Your task to perform on an android device: What's the news about the US? Image 0: 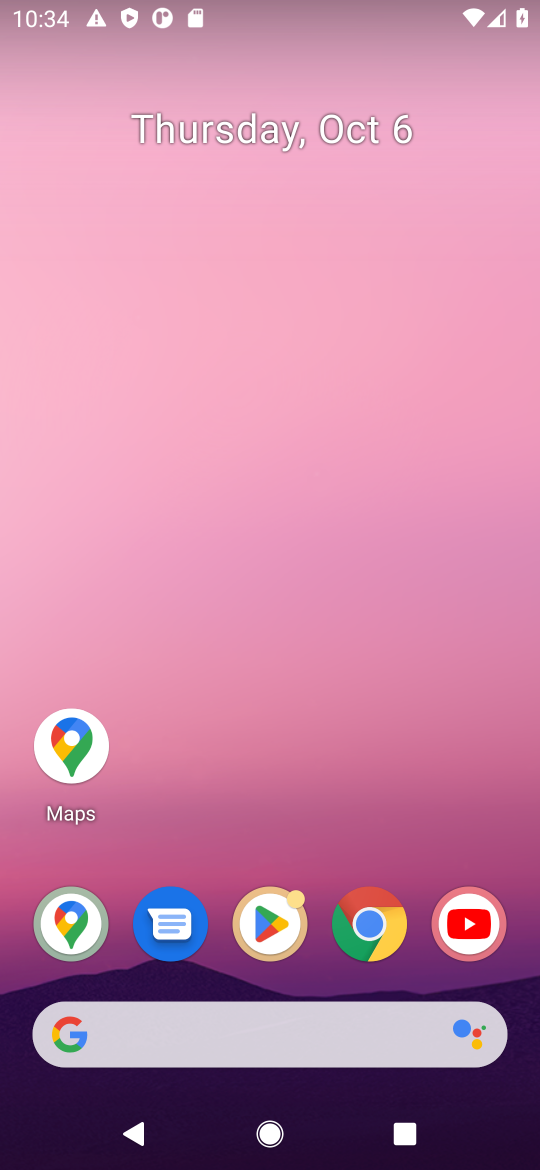
Step 0: click (363, 935)
Your task to perform on an android device: What's the news about the US? Image 1: 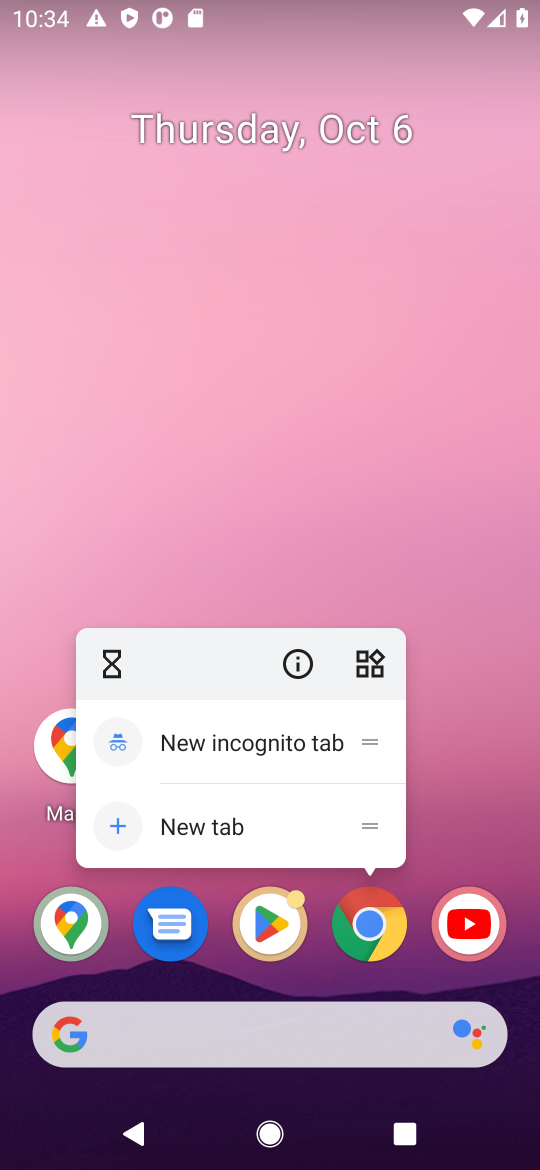
Step 1: click (361, 919)
Your task to perform on an android device: What's the news about the US? Image 2: 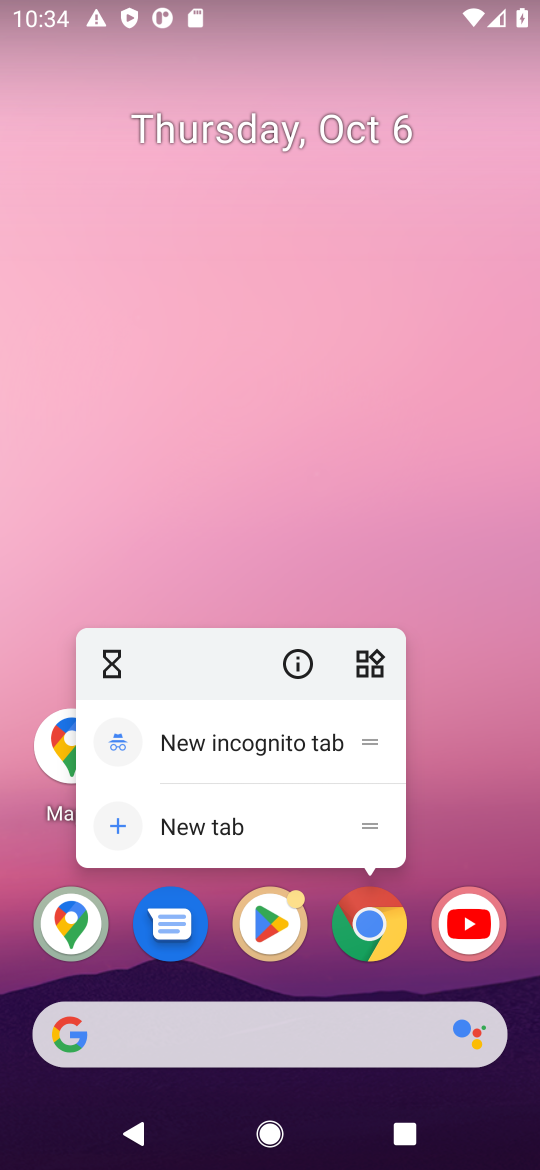
Step 2: click (370, 928)
Your task to perform on an android device: What's the news about the US? Image 3: 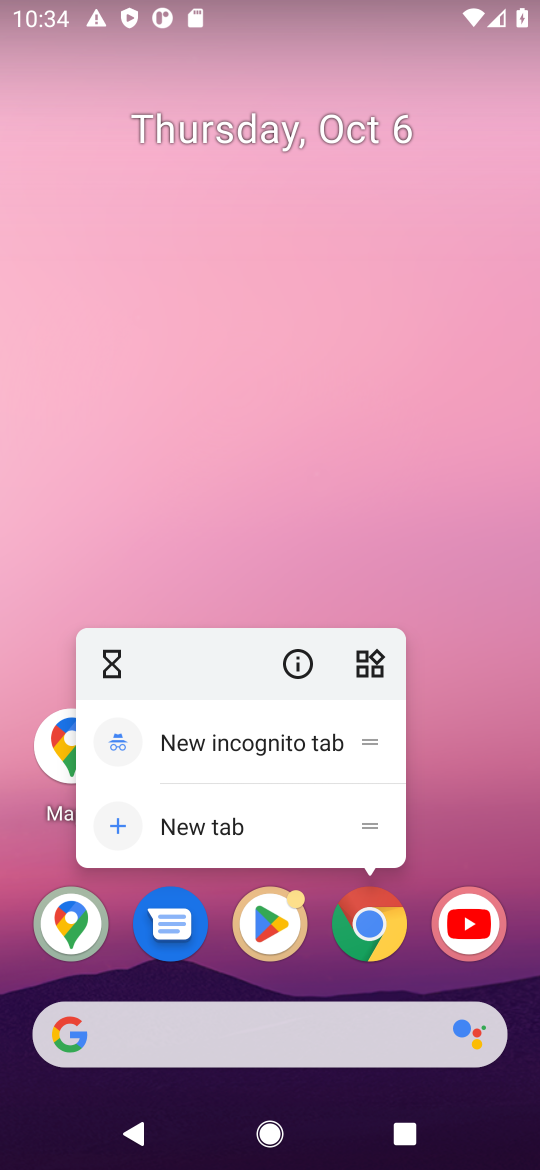
Step 3: click (370, 925)
Your task to perform on an android device: What's the news about the US? Image 4: 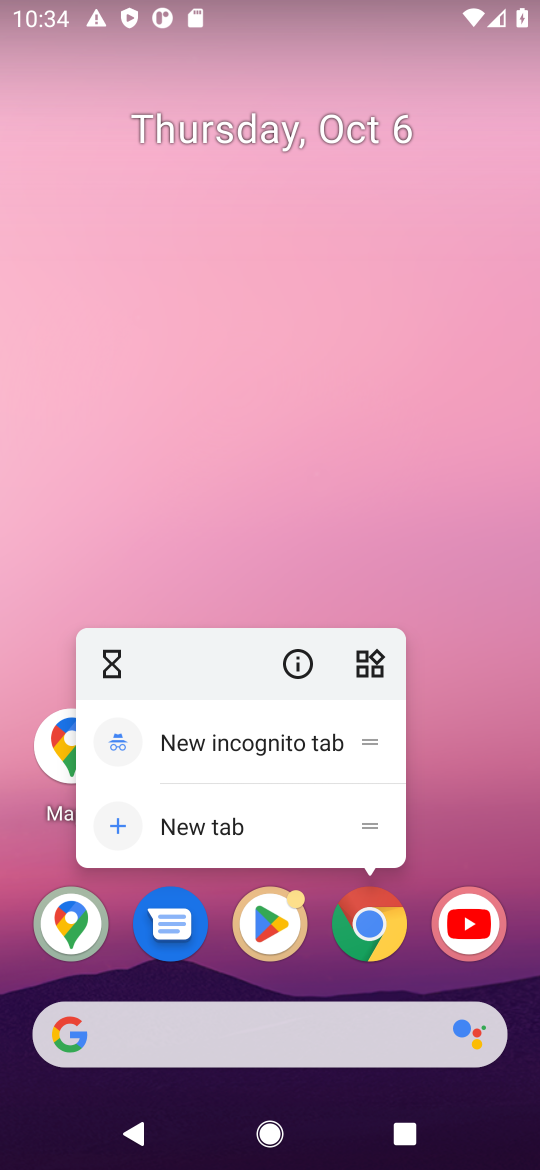
Step 4: click (370, 924)
Your task to perform on an android device: What's the news about the US? Image 5: 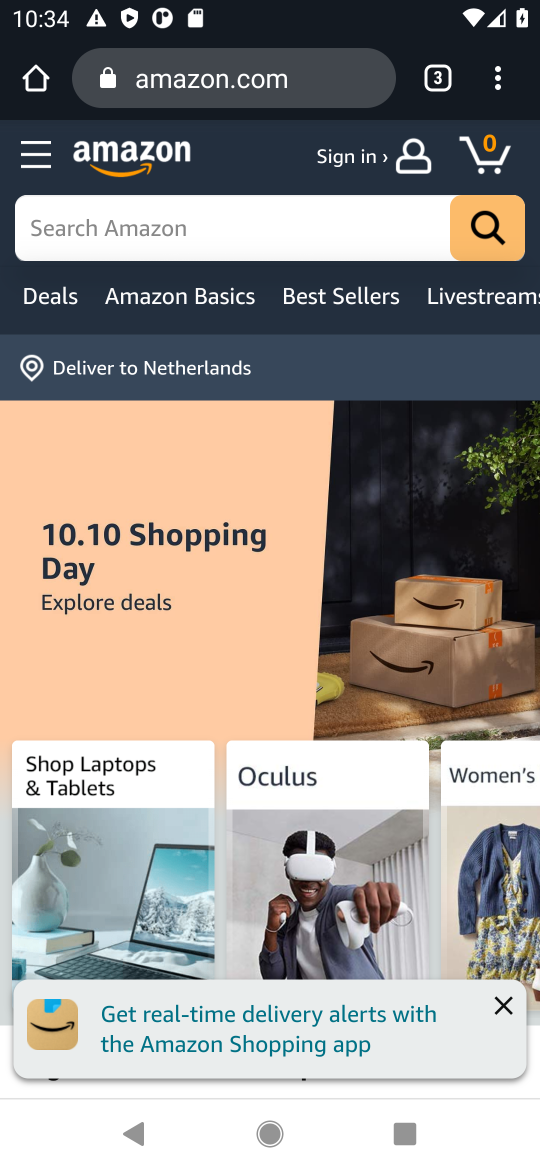
Step 5: click (343, 91)
Your task to perform on an android device: What's the news about the US? Image 6: 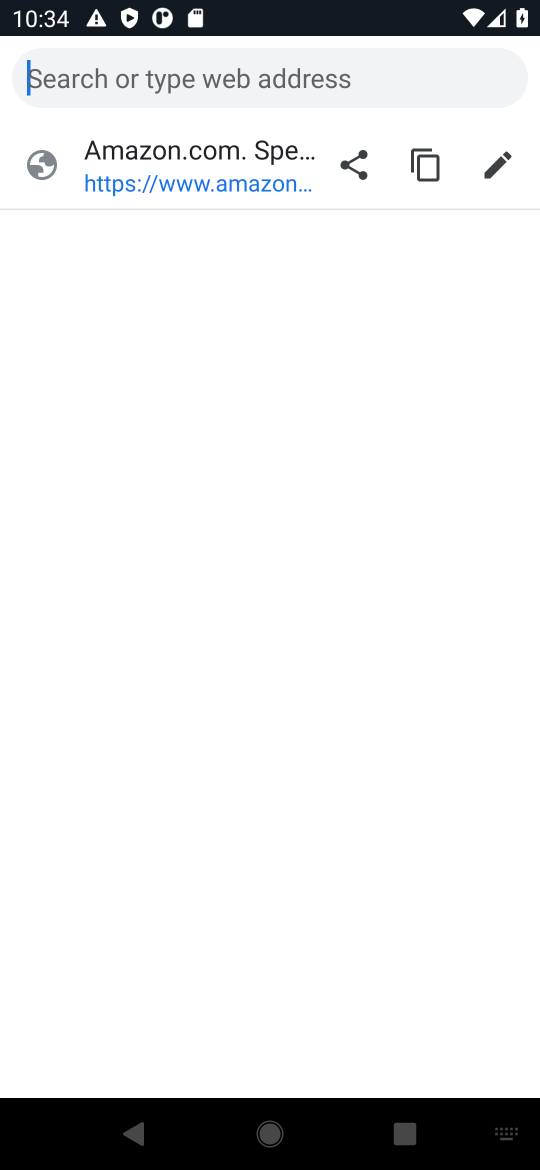
Step 6: type "news about the US"
Your task to perform on an android device: What's the news about the US? Image 7: 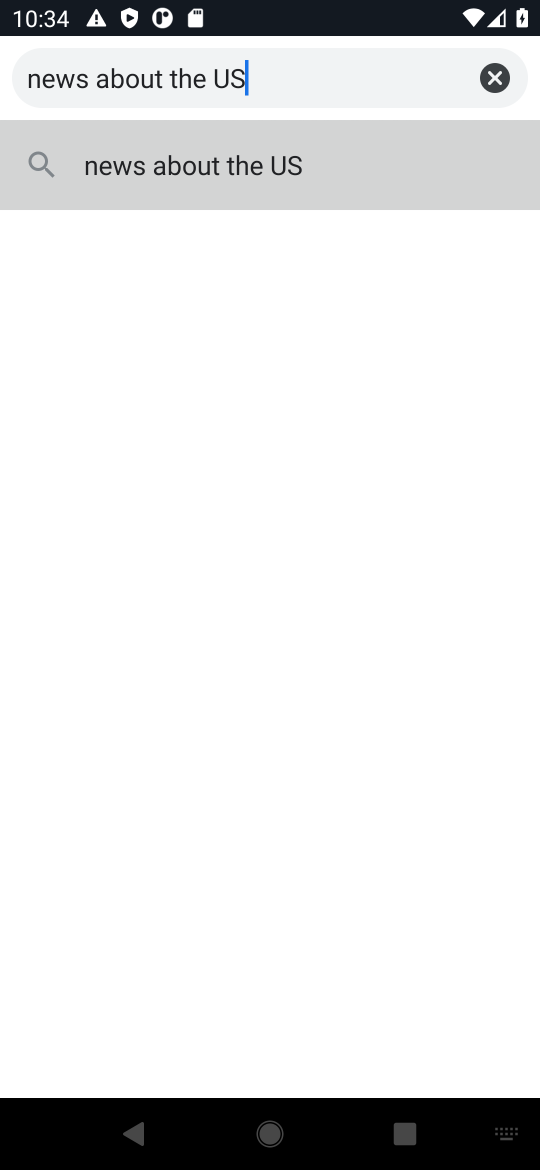
Step 7: click (287, 156)
Your task to perform on an android device: What's the news about the US? Image 8: 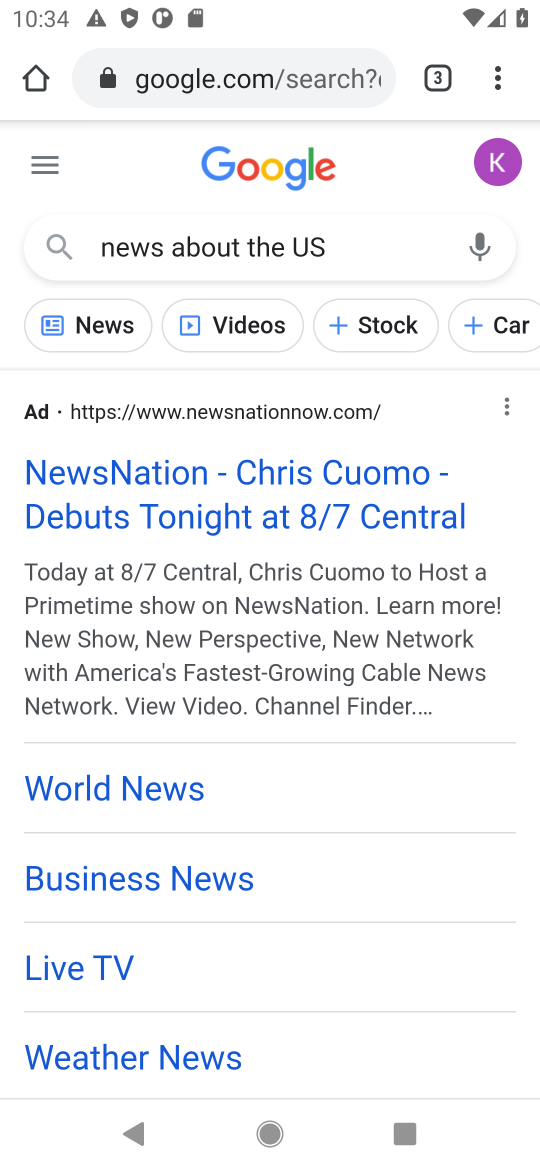
Step 8: drag from (315, 1028) to (375, 577)
Your task to perform on an android device: What's the news about the US? Image 9: 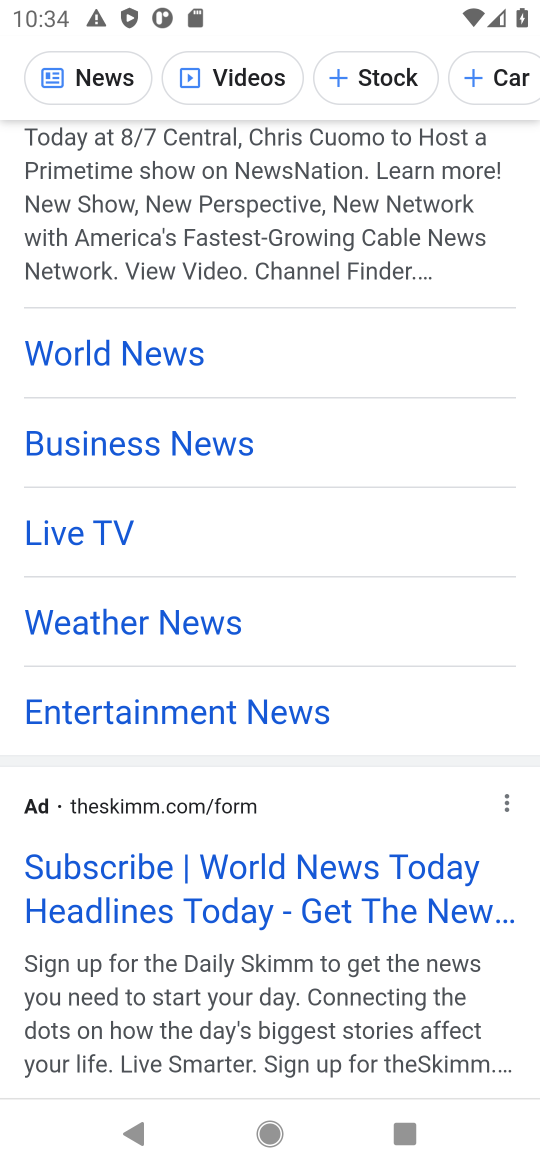
Step 9: drag from (276, 442) to (285, 812)
Your task to perform on an android device: What's the news about the US? Image 10: 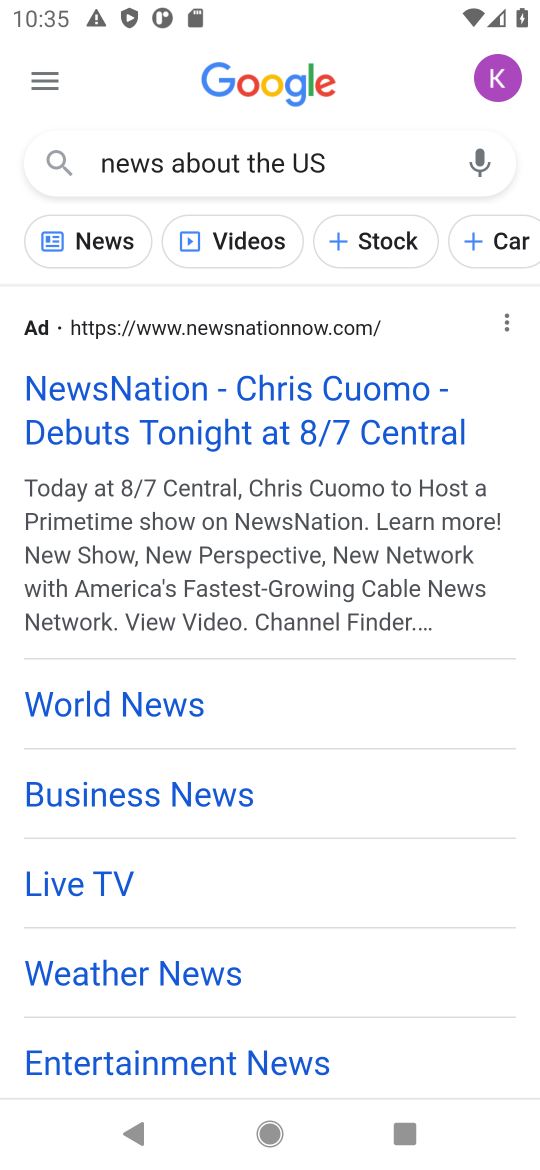
Step 10: click (99, 239)
Your task to perform on an android device: What's the news about the US? Image 11: 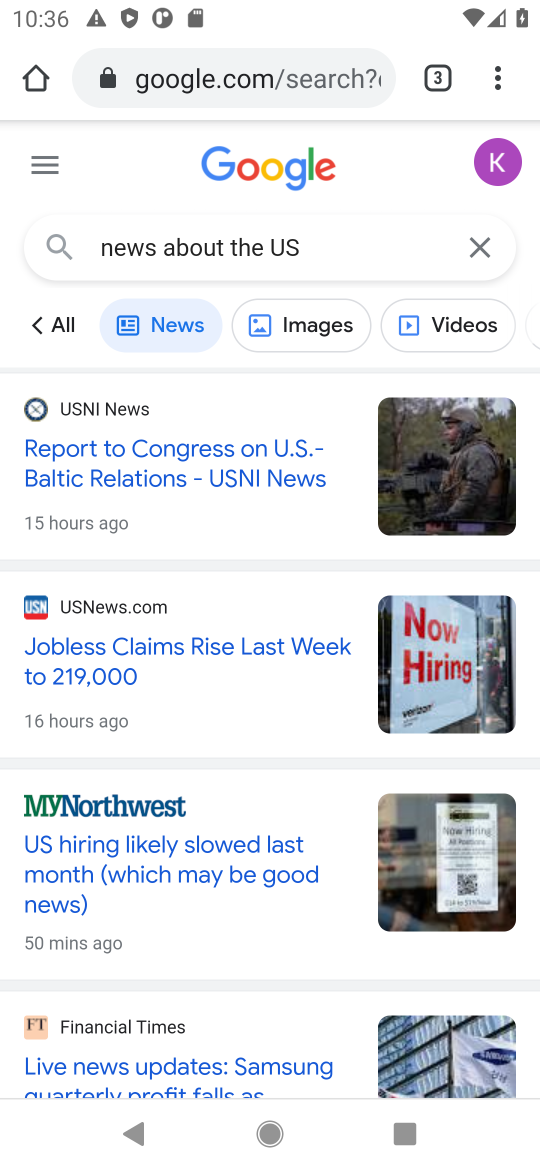
Step 11: task complete